Your task to perform on an android device: check out phone information Image 0: 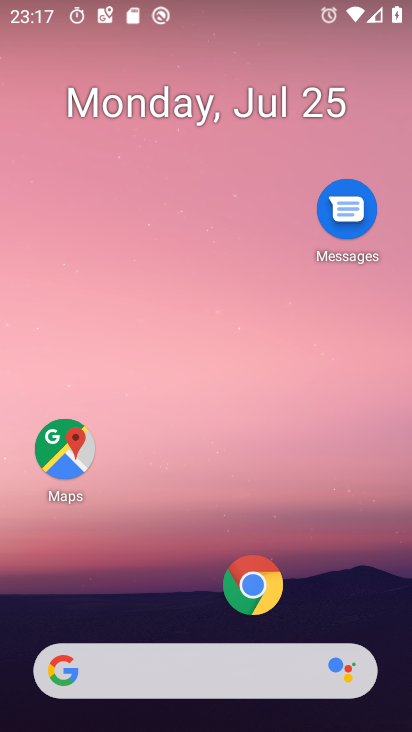
Step 0: press home button
Your task to perform on an android device: check out phone information Image 1: 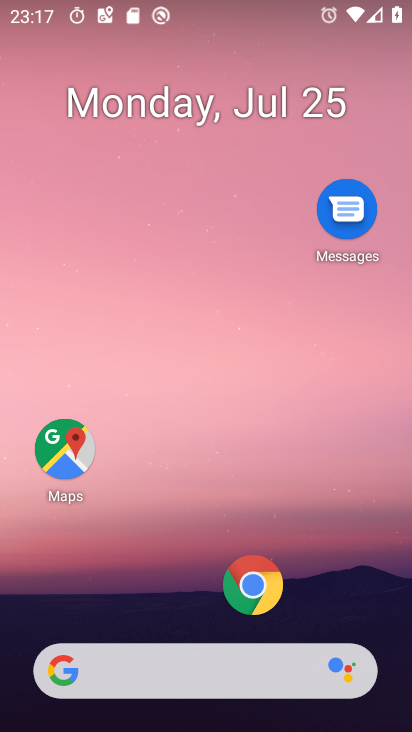
Step 1: drag from (187, 642) to (324, 132)
Your task to perform on an android device: check out phone information Image 2: 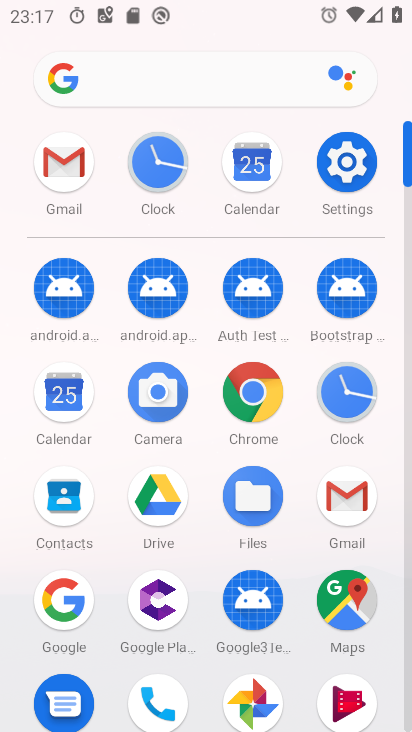
Step 2: click (352, 164)
Your task to perform on an android device: check out phone information Image 3: 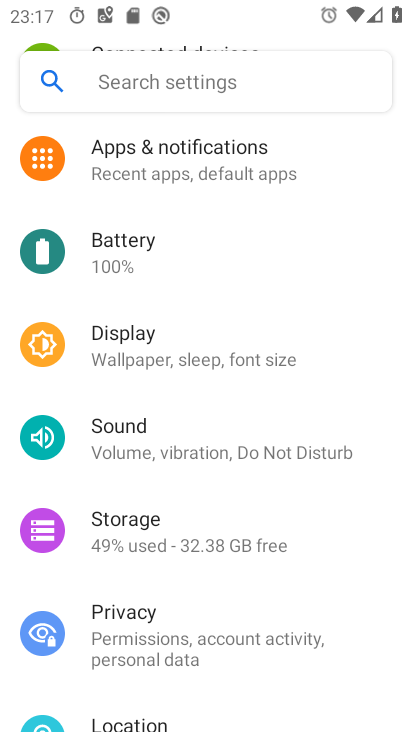
Step 3: drag from (296, 639) to (374, 85)
Your task to perform on an android device: check out phone information Image 4: 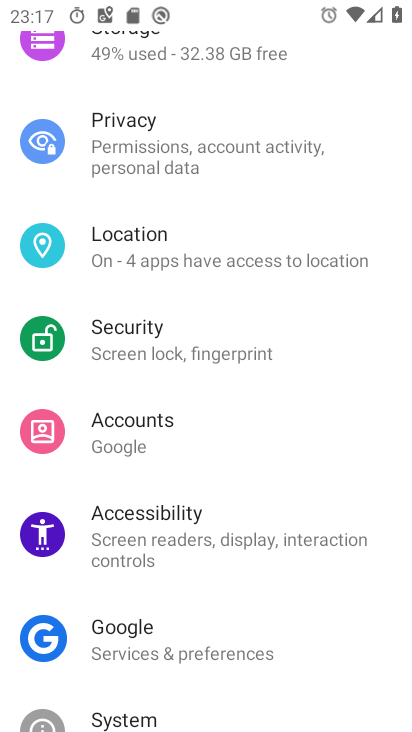
Step 4: drag from (278, 681) to (355, 71)
Your task to perform on an android device: check out phone information Image 5: 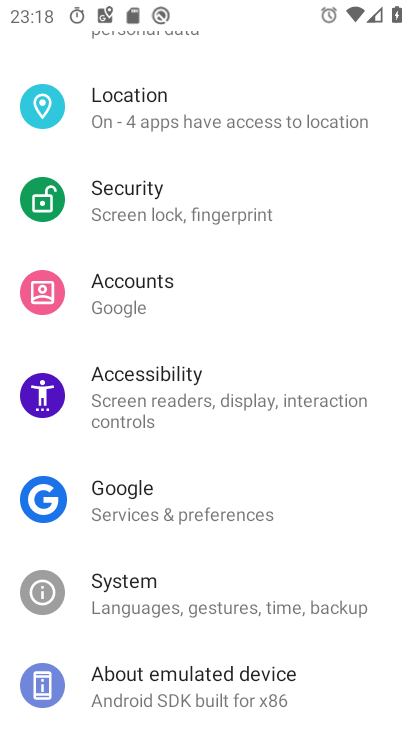
Step 5: click (190, 685)
Your task to perform on an android device: check out phone information Image 6: 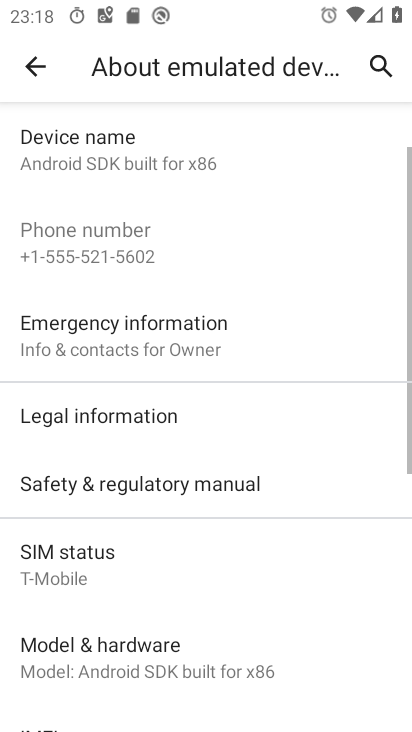
Step 6: task complete